Your task to perform on an android device: Show me productivity apps on the Play Store Image 0: 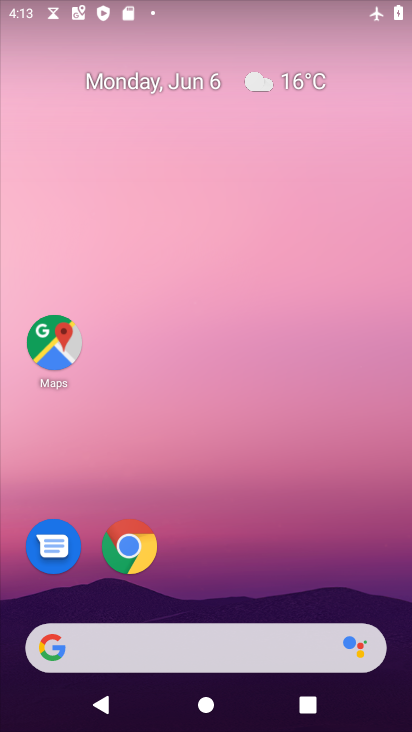
Step 0: drag from (292, 524) to (379, 21)
Your task to perform on an android device: Show me productivity apps on the Play Store Image 1: 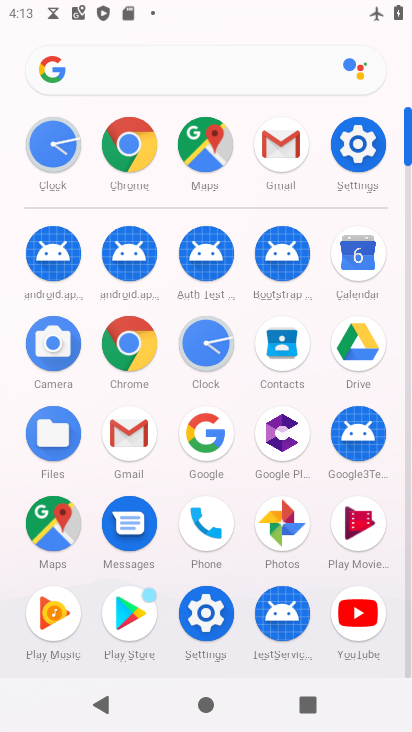
Step 1: click (127, 626)
Your task to perform on an android device: Show me productivity apps on the Play Store Image 2: 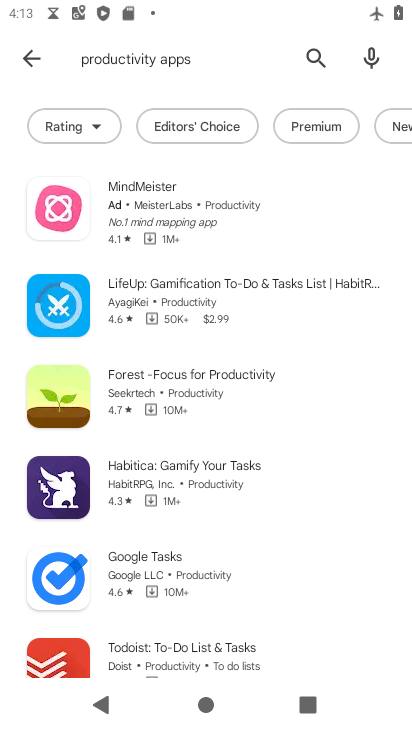
Step 2: task complete